Your task to perform on an android device: Play the last video I watched on Youtube Image 0: 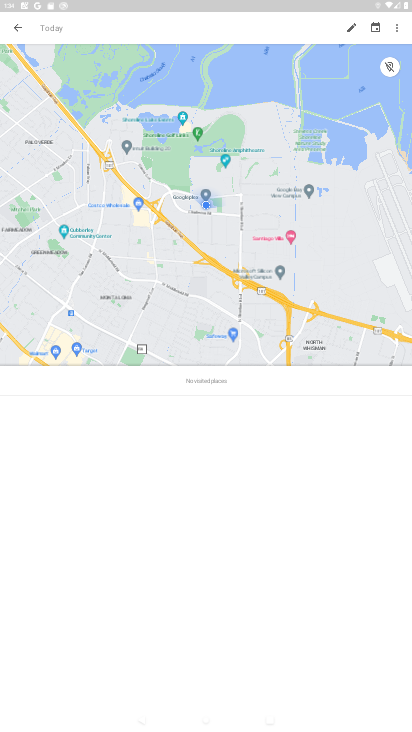
Step 0: press home button
Your task to perform on an android device: Play the last video I watched on Youtube Image 1: 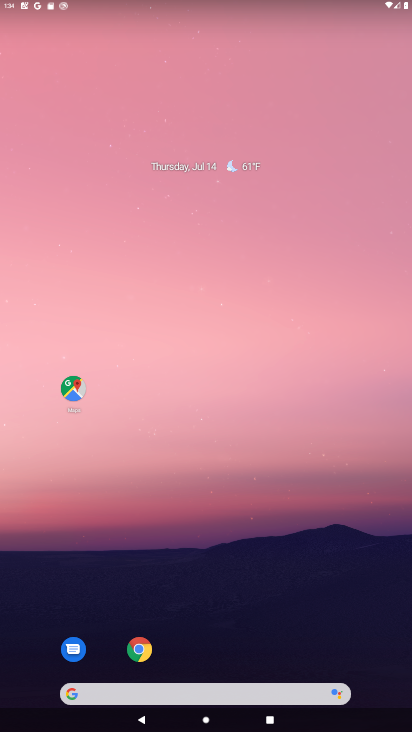
Step 1: drag from (228, 717) to (245, 276)
Your task to perform on an android device: Play the last video I watched on Youtube Image 2: 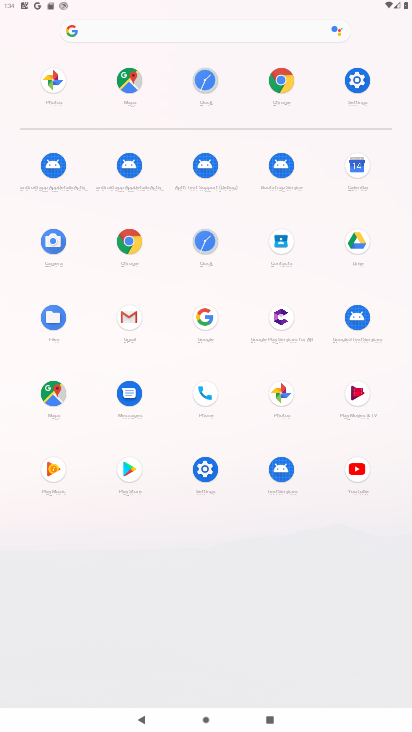
Step 2: click (363, 472)
Your task to perform on an android device: Play the last video I watched on Youtube Image 3: 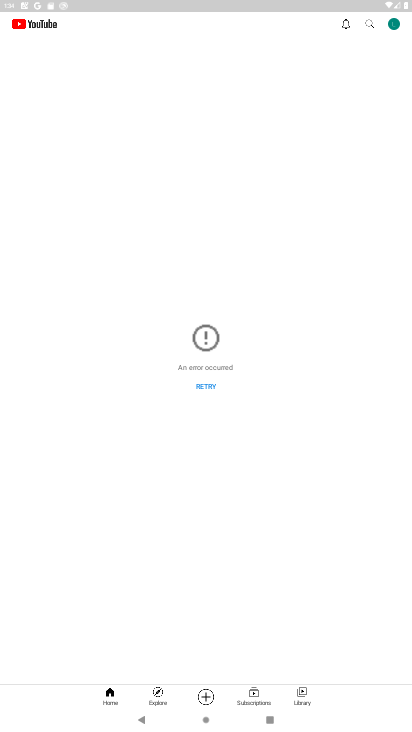
Step 3: click (308, 691)
Your task to perform on an android device: Play the last video I watched on Youtube Image 4: 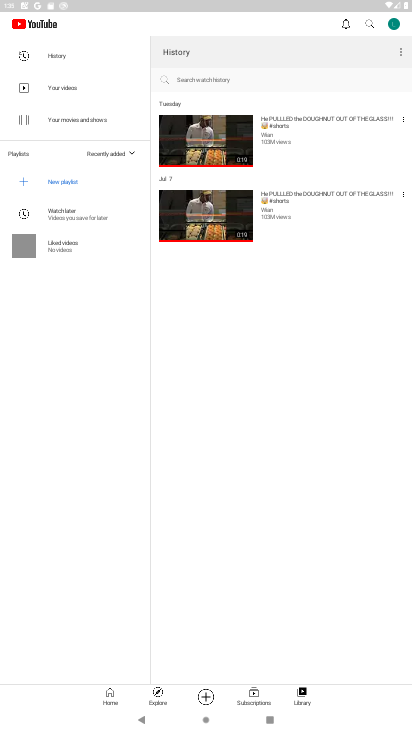
Step 4: click (242, 147)
Your task to perform on an android device: Play the last video I watched on Youtube Image 5: 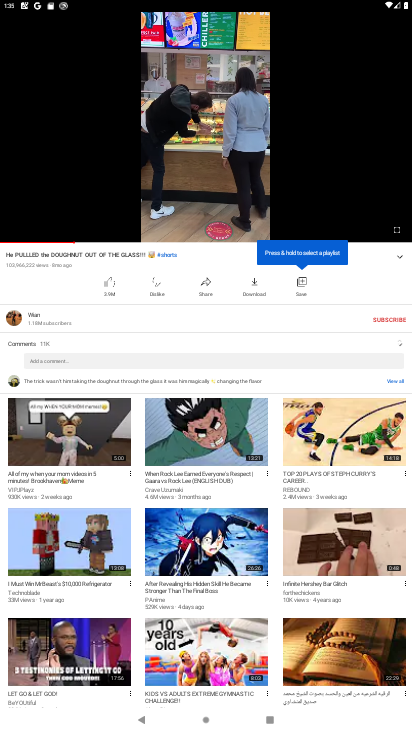
Step 5: task complete